Your task to perform on an android device: Open settings on Google Maps Image 0: 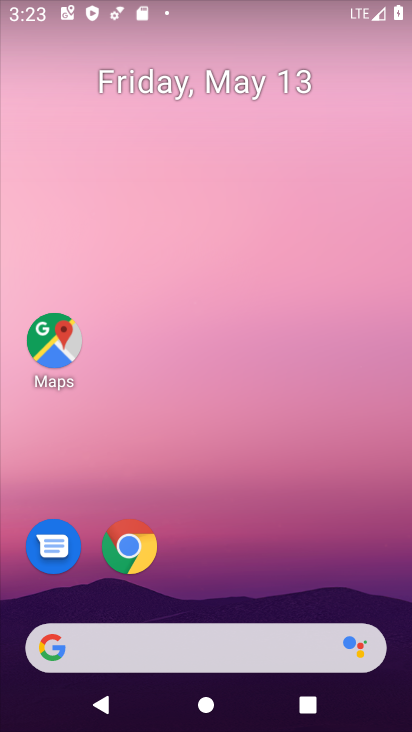
Step 0: click (53, 342)
Your task to perform on an android device: Open settings on Google Maps Image 1: 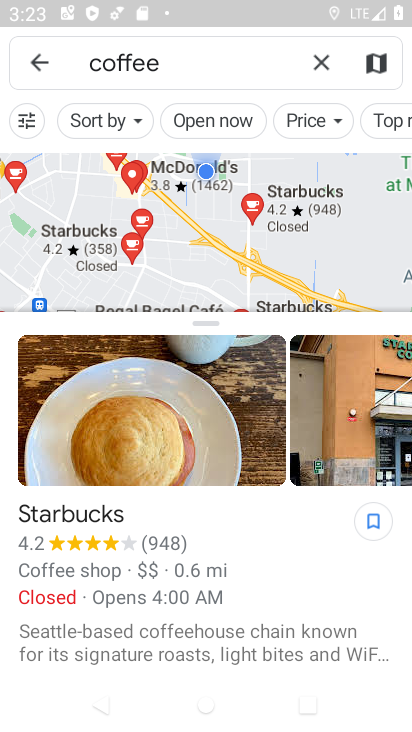
Step 1: click (51, 59)
Your task to perform on an android device: Open settings on Google Maps Image 2: 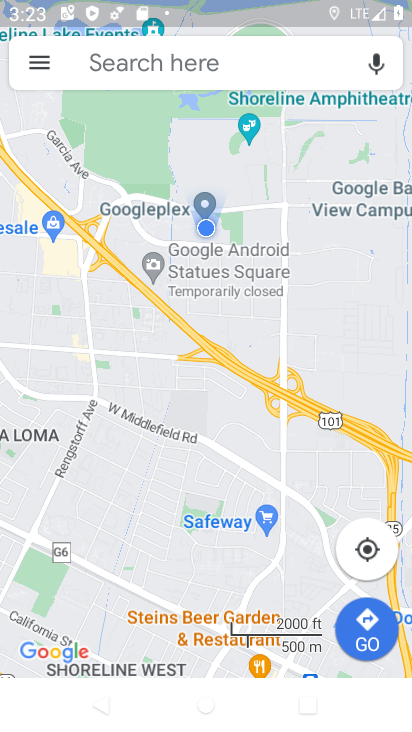
Step 2: click (51, 59)
Your task to perform on an android device: Open settings on Google Maps Image 3: 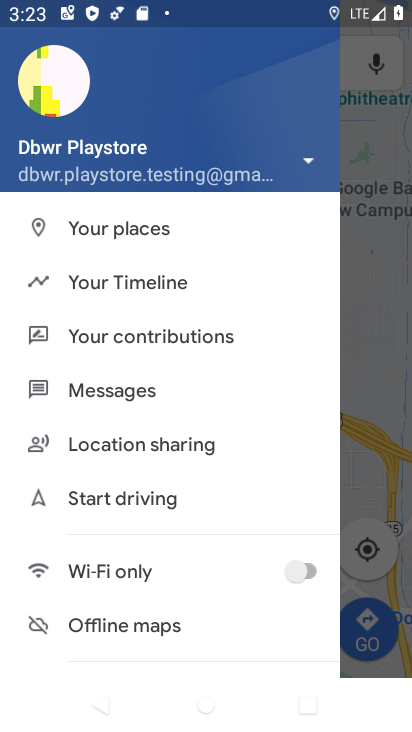
Step 3: drag from (91, 624) to (96, 147)
Your task to perform on an android device: Open settings on Google Maps Image 4: 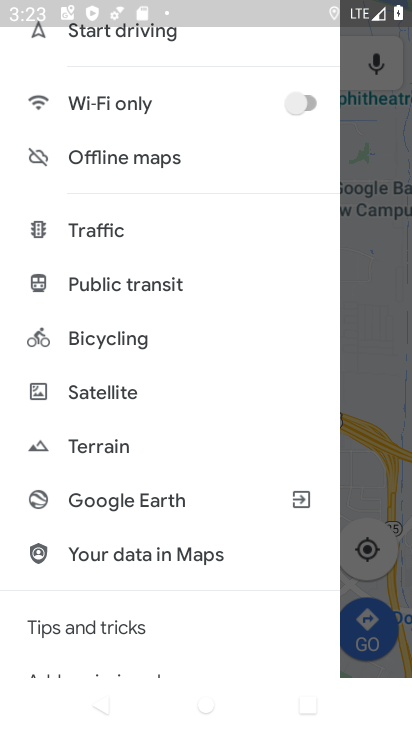
Step 4: drag from (157, 642) to (125, 214)
Your task to perform on an android device: Open settings on Google Maps Image 5: 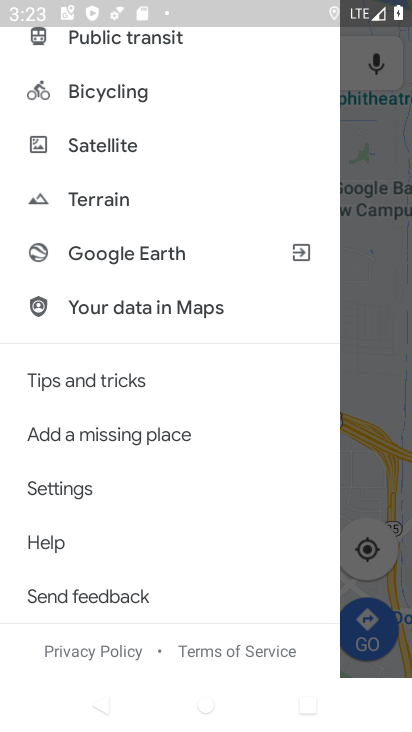
Step 5: click (98, 501)
Your task to perform on an android device: Open settings on Google Maps Image 6: 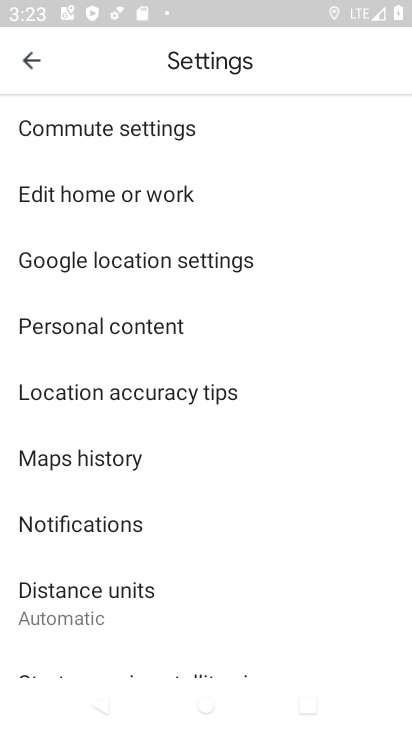
Step 6: task complete